Your task to perform on an android device: turn on location history Image 0: 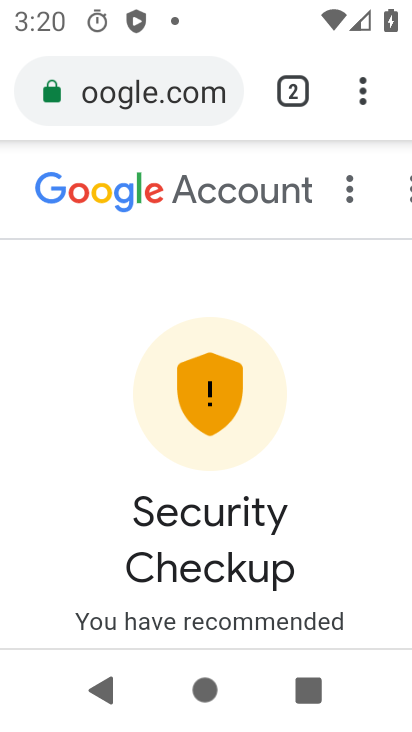
Step 0: press home button
Your task to perform on an android device: turn on location history Image 1: 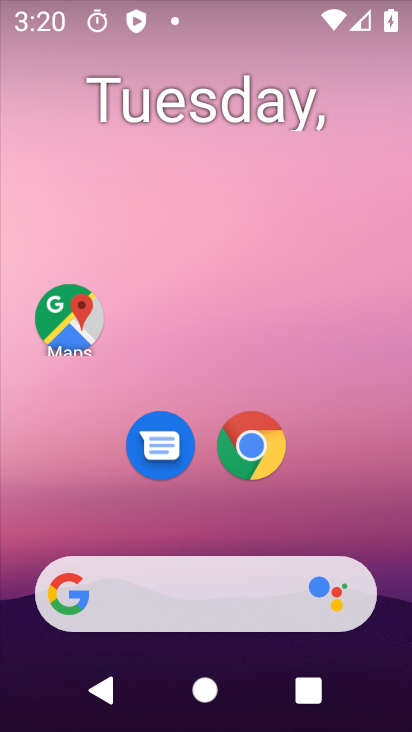
Step 1: drag from (241, 558) to (209, 7)
Your task to perform on an android device: turn on location history Image 2: 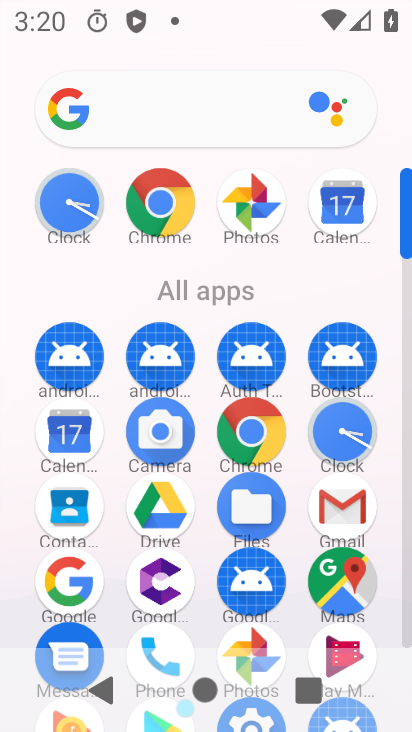
Step 2: drag from (200, 582) to (134, 78)
Your task to perform on an android device: turn on location history Image 3: 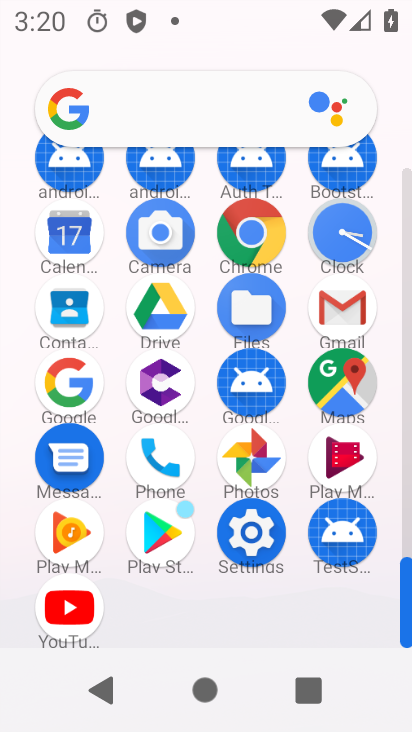
Step 3: click (242, 531)
Your task to perform on an android device: turn on location history Image 4: 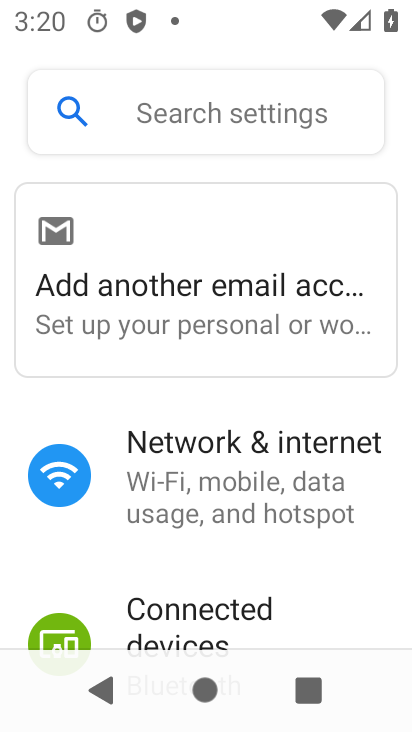
Step 4: drag from (220, 553) to (172, 197)
Your task to perform on an android device: turn on location history Image 5: 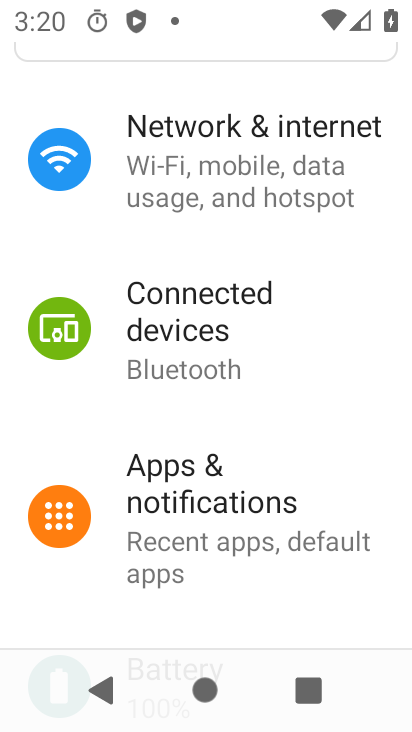
Step 5: drag from (233, 562) to (209, 252)
Your task to perform on an android device: turn on location history Image 6: 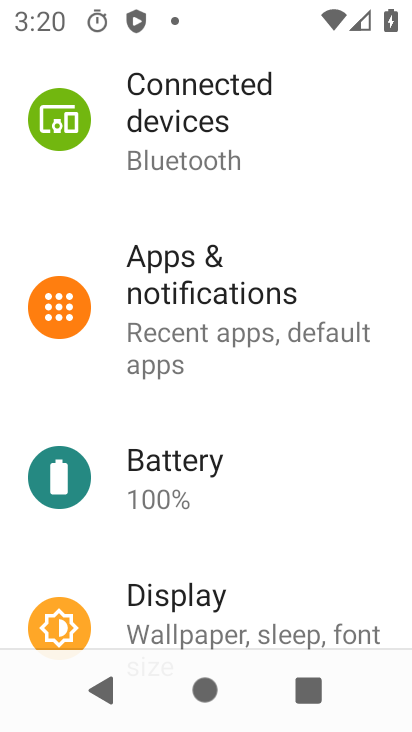
Step 6: drag from (182, 469) to (122, 5)
Your task to perform on an android device: turn on location history Image 7: 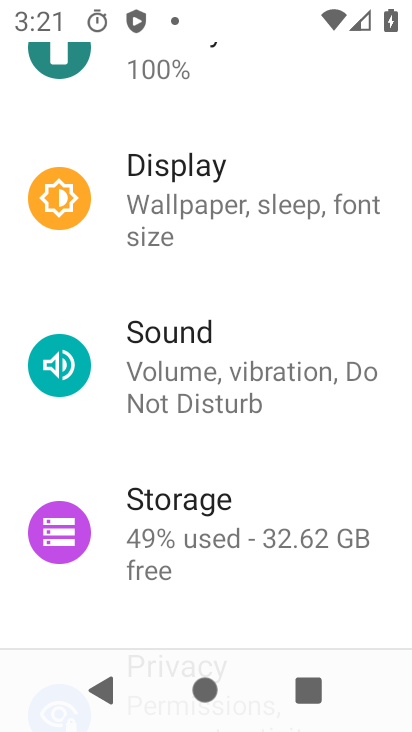
Step 7: drag from (221, 499) to (174, 46)
Your task to perform on an android device: turn on location history Image 8: 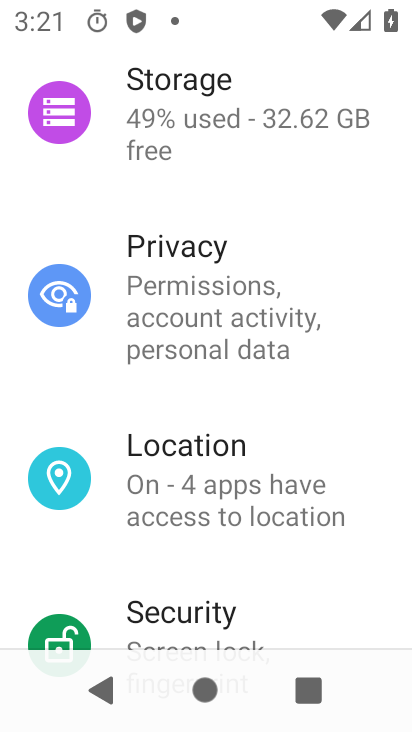
Step 8: click (199, 511)
Your task to perform on an android device: turn on location history Image 9: 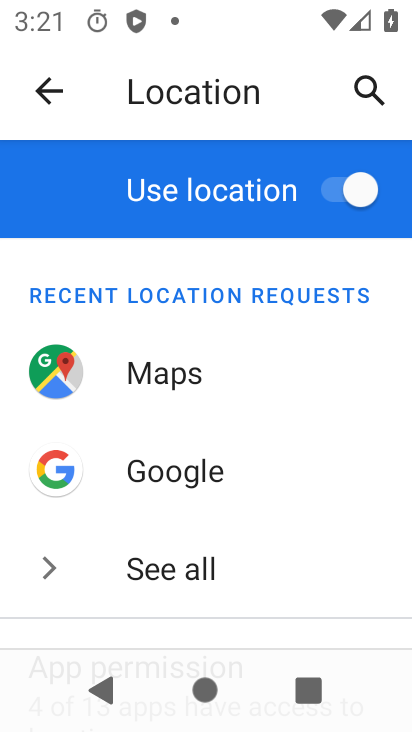
Step 9: drag from (251, 486) to (189, 163)
Your task to perform on an android device: turn on location history Image 10: 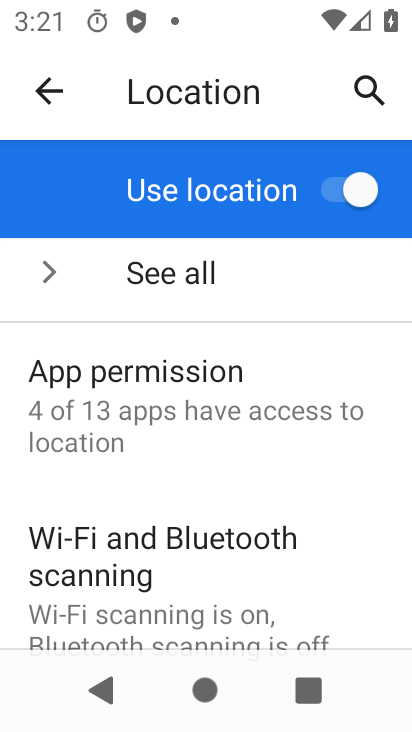
Step 10: drag from (184, 524) to (124, 115)
Your task to perform on an android device: turn on location history Image 11: 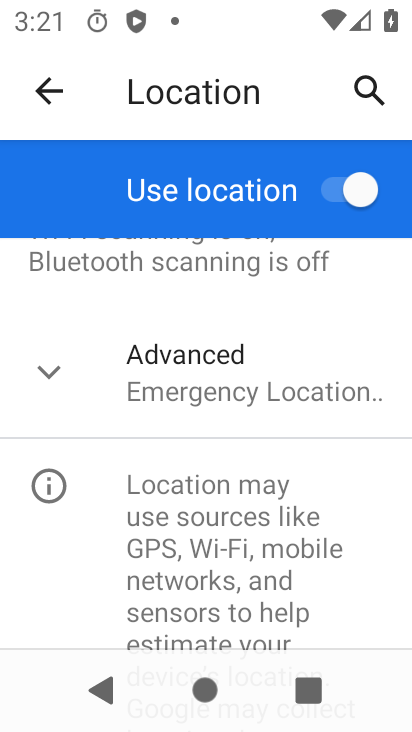
Step 11: drag from (197, 447) to (158, 201)
Your task to perform on an android device: turn on location history Image 12: 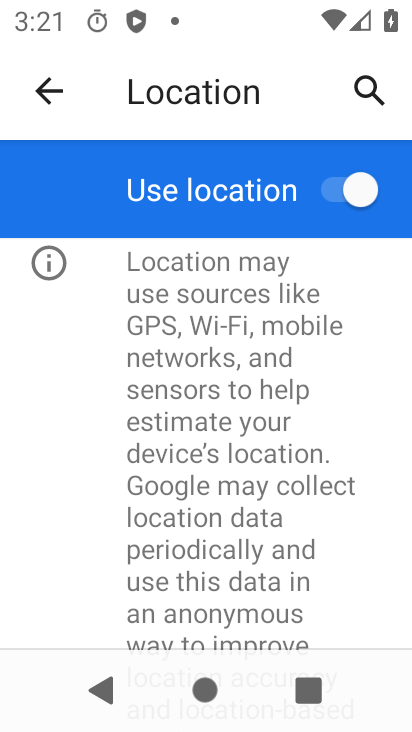
Step 12: drag from (165, 486) to (144, 110)
Your task to perform on an android device: turn on location history Image 13: 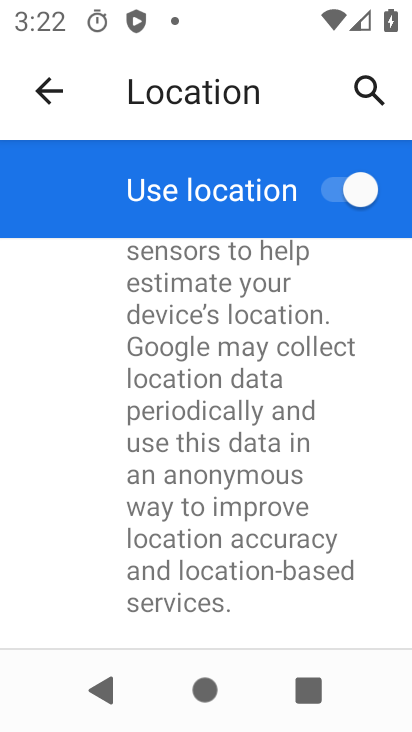
Step 13: drag from (197, 455) to (143, 85)
Your task to perform on an android device: turn on location history Image 14: 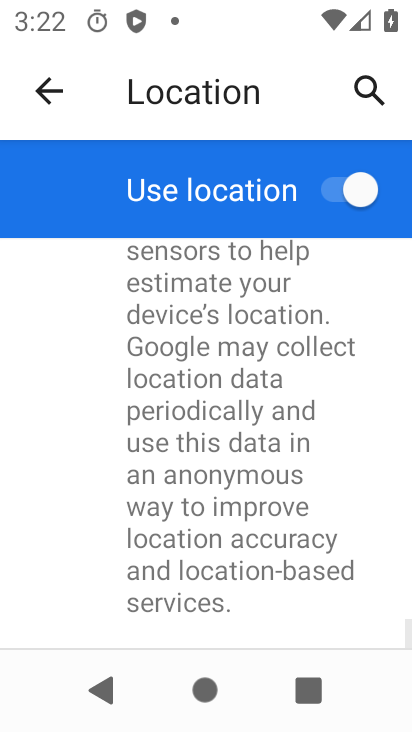
Step 14: drag from (254, 342) to (290, 729)
Your task to perform on an android device: turn on location history Image 15: 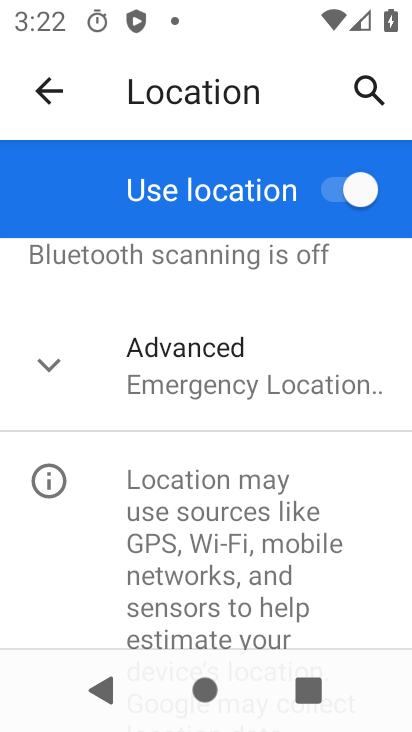
Step 15: click (234, 372)
Your task to perform on an android device: turn on location history Image 16: 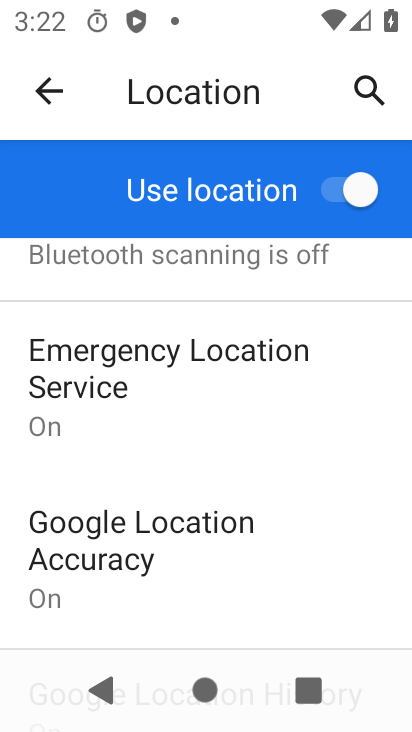
Step 16: drag from (172, 560) to (153, 214)
Your task to perform on an android device: turn on location history Image 17: 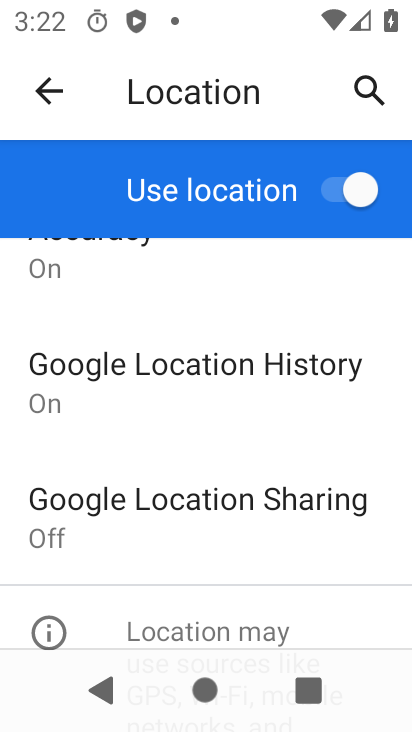
Step 17: click (149, 366)
Your task to perform on an android device: turn on location history Image 18: 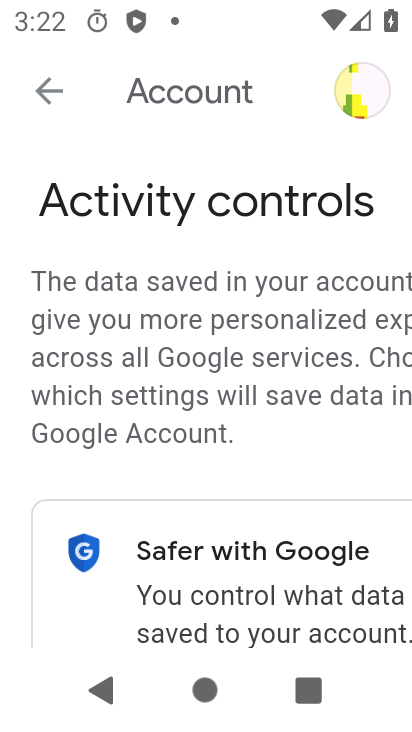
Step 18: task complete